Your task to perform on an android device: allow cookies in the chrome app Image 0: 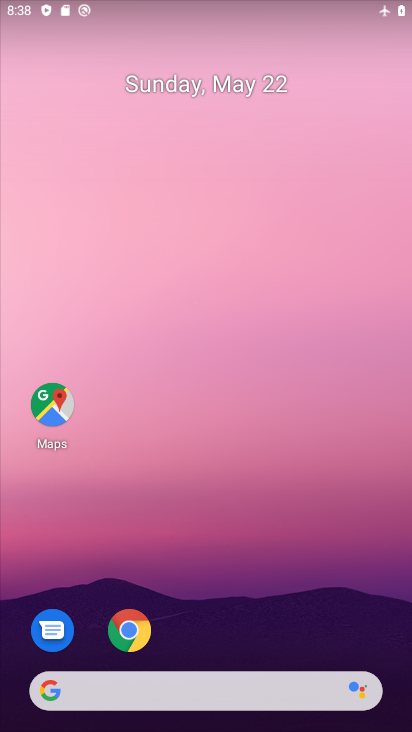
Step 0: click (145, 612)
Your task to perform on an android device: allow cookies in the chrome app Image 1: 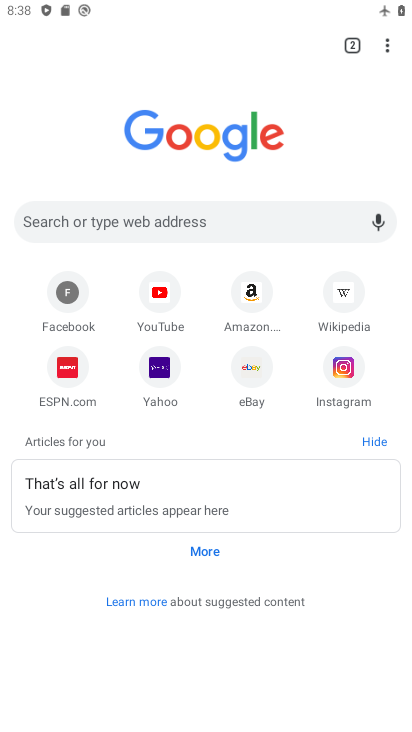
Step 1: click (381, 40)
Your task to perform on an android device: allow cookies in the chrome app Image 2: 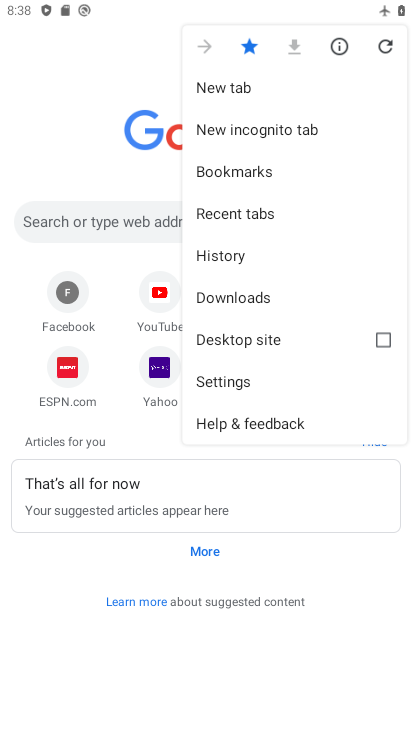
Step 2: click (230, 382)
Your task to perform on an android device: allow cookies in the chrome app Image 3: 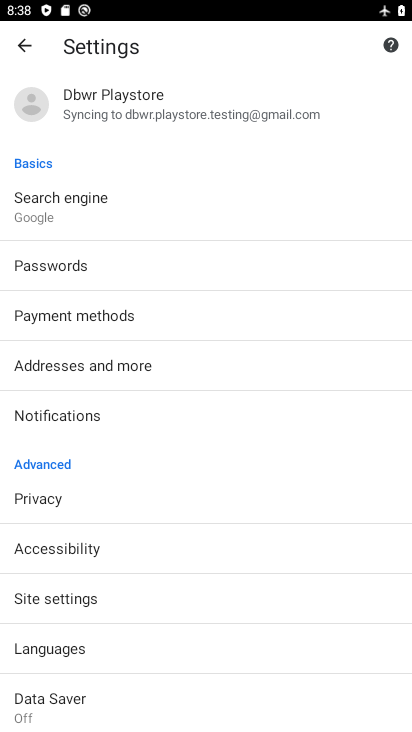
Step 3: drag from (241, 681) to (209, 320)
Your task to perform on an android device: allow cookies in the chrome app Image 4: 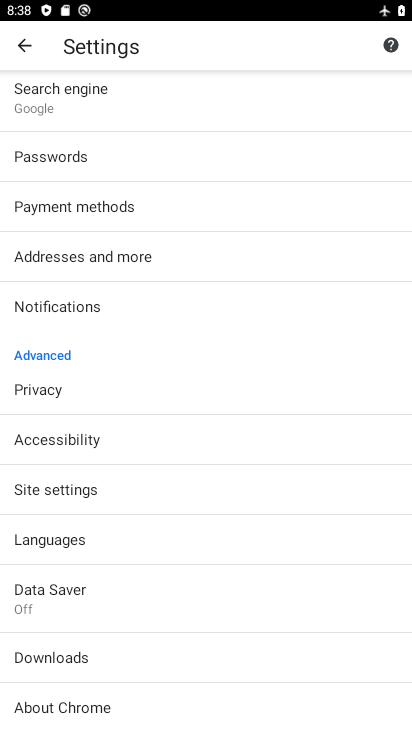
Step 4: drag from (263, 689) to (216, 303)
Your task to perform on an android device: allow cookies in the chrome app Image 5: 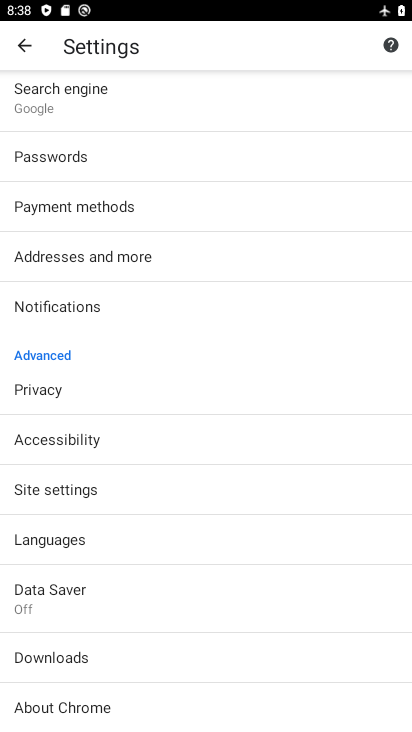
Step 5: drag from (279, 696) to (222, 323)
Your task to perform on an android device: allow cookies in the chrome app Image 6: 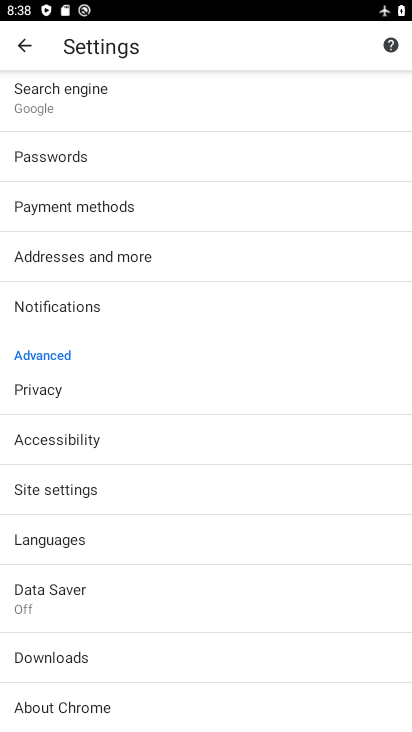
Step 6: drag from (235, 122) to (266, 554)
Your task to perform on an android device: allow cookies in the chrome app Image 7: 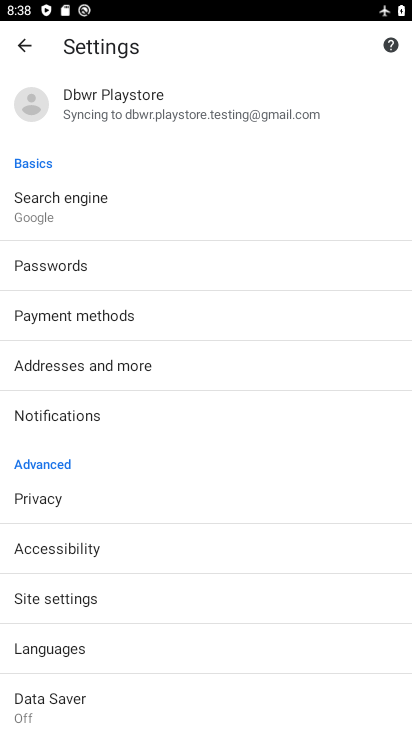
Step 7: click (73, 583)
Your task to perform on an android device: allow cookies in the chrome app Image 8: 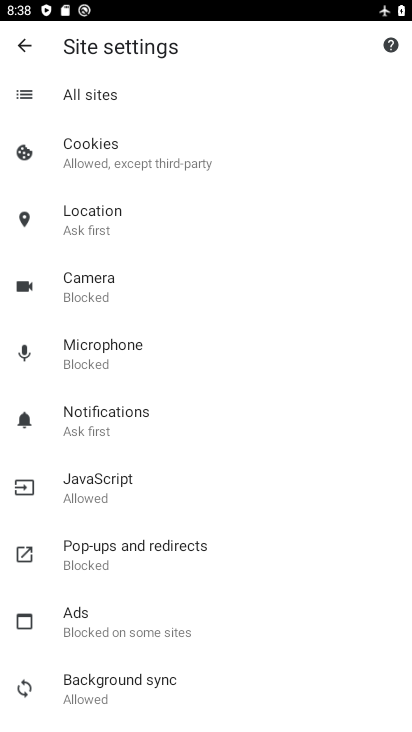
Step 8: click (116, 153)
Your task to perform on an android device: allow cookies in the chrome app Image 9: 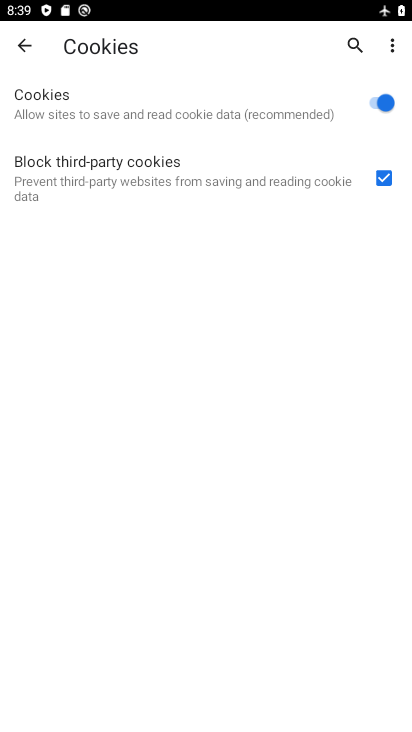
Step 9: task complete